Your task to perform on an android device: turn smart compose on in the gmail app Image 0: 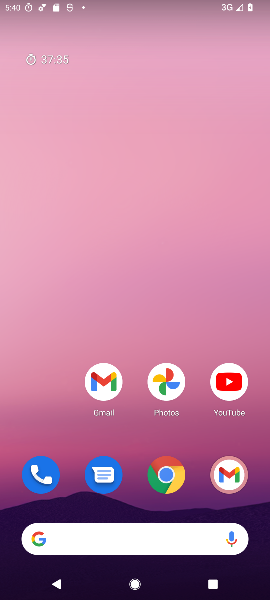
Step 0: press home button
Your task to perform on an android device: turn smart compose on in the gmail app Image 1: 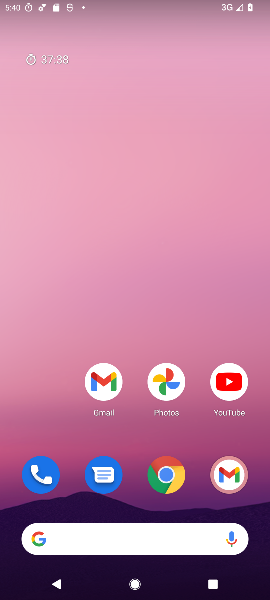
Step 1: drag from (62, 373) to (51, 169)
Your task to perform on an android device: turn smart compose on in the gmail app Image 2: 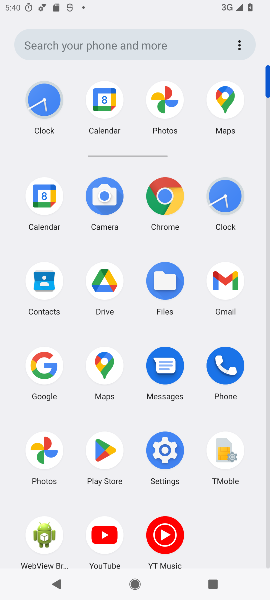
Step 2: click (221, 279)
Your task to perform on an android device: turn smart compose on in the gmail app Image 3: 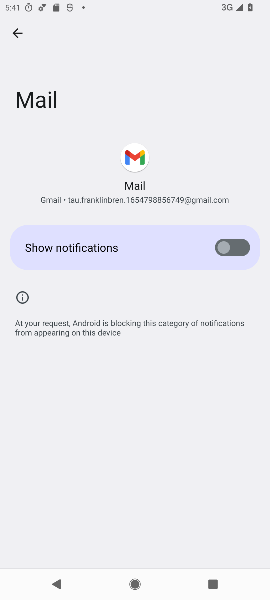
Step 3: task complete